Your task to perform on an android device: What's the news about the US dollar exchange rate? Image 0: 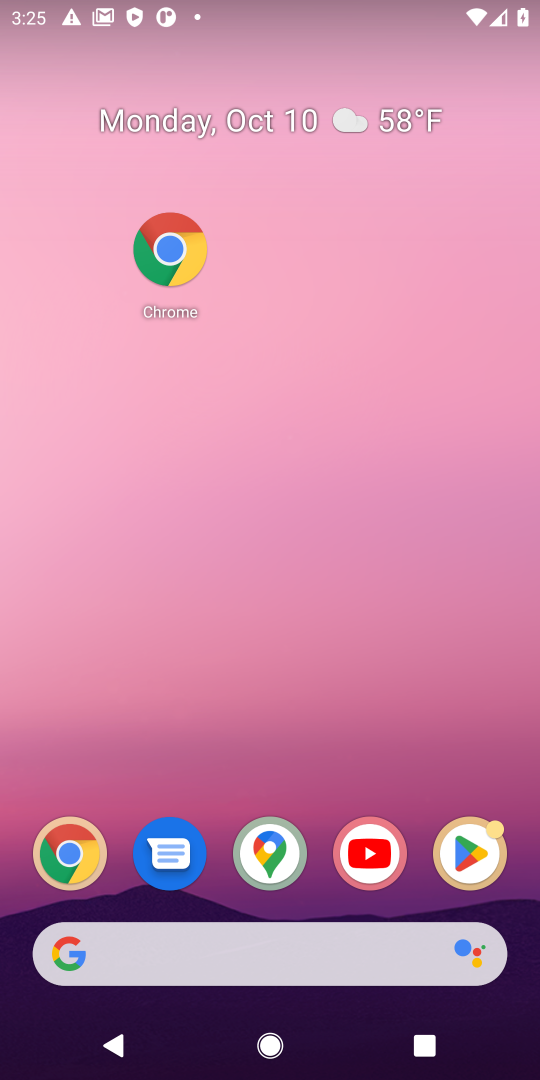
Step 0: press home button
Your task to perform on an android device: What's the news about the US dollar exchange rate? Image 1: 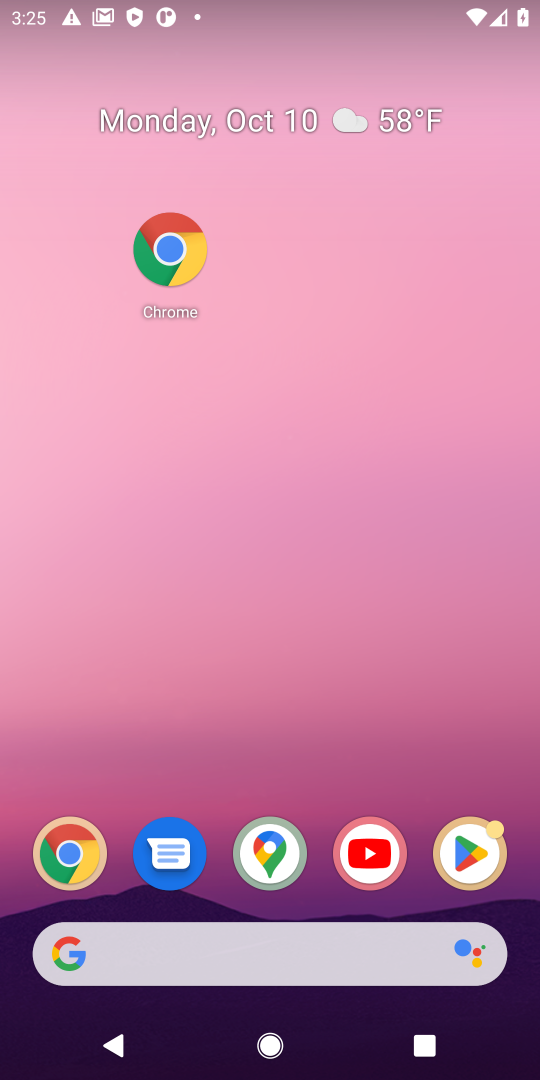
Step 1: click (49, 849)
Your task to perform on an android device: What's the news about the US dollar exchange rate? Image 2: 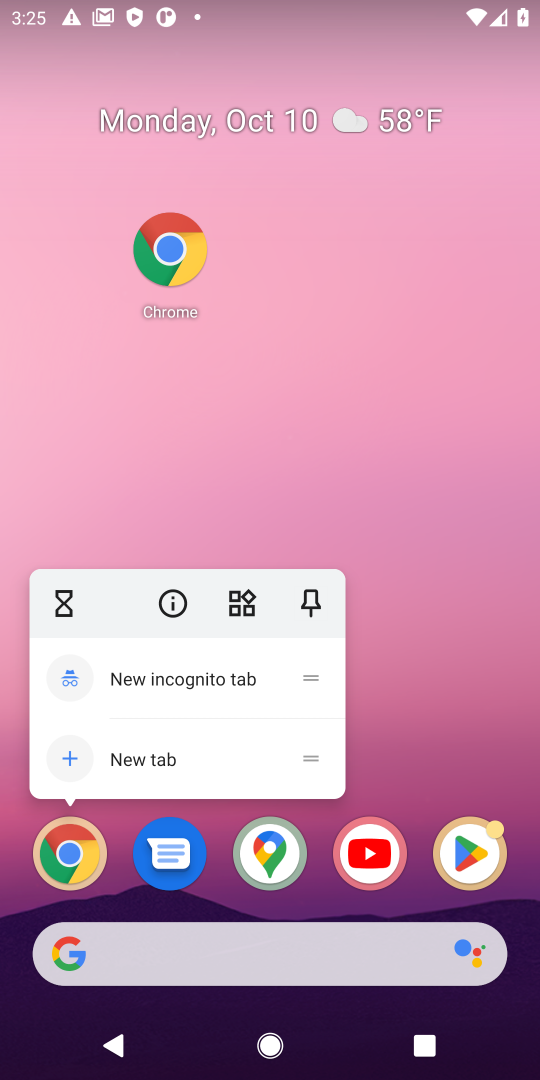
Step 2: click (52, 854)
Your task to perform on an android device: What's the news about the US dollar exchange rate? Image 3: 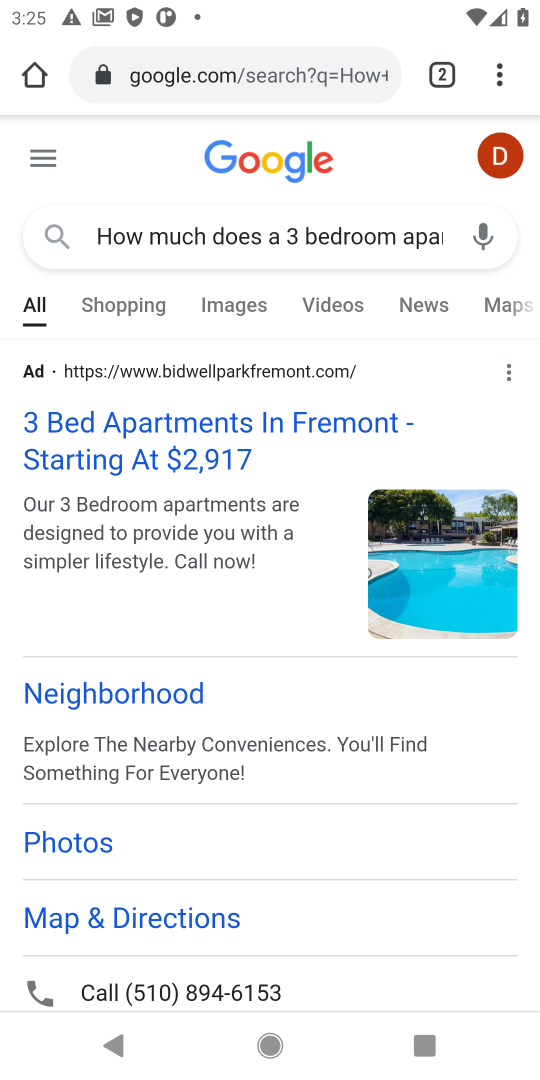
Step 3: click (328, 67)
Your task to perform on an android device: What's the news about the US dollar exchange rate? Image 4: 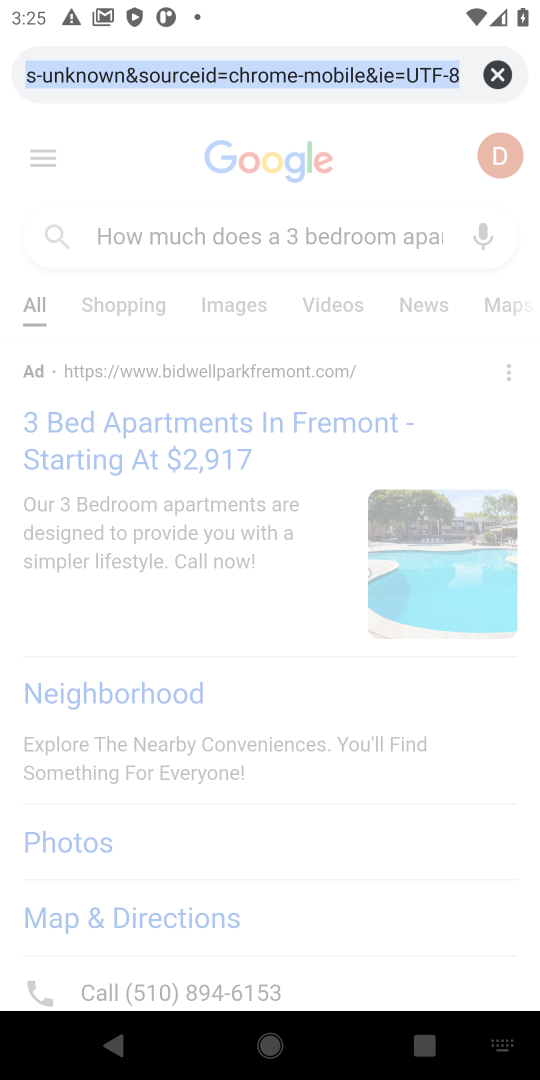
Step 4: type "What's the news about the US dollar exchange rate?"
Your task to perform on an android device: What's the news about the US dollar exchange rate? Image 5: 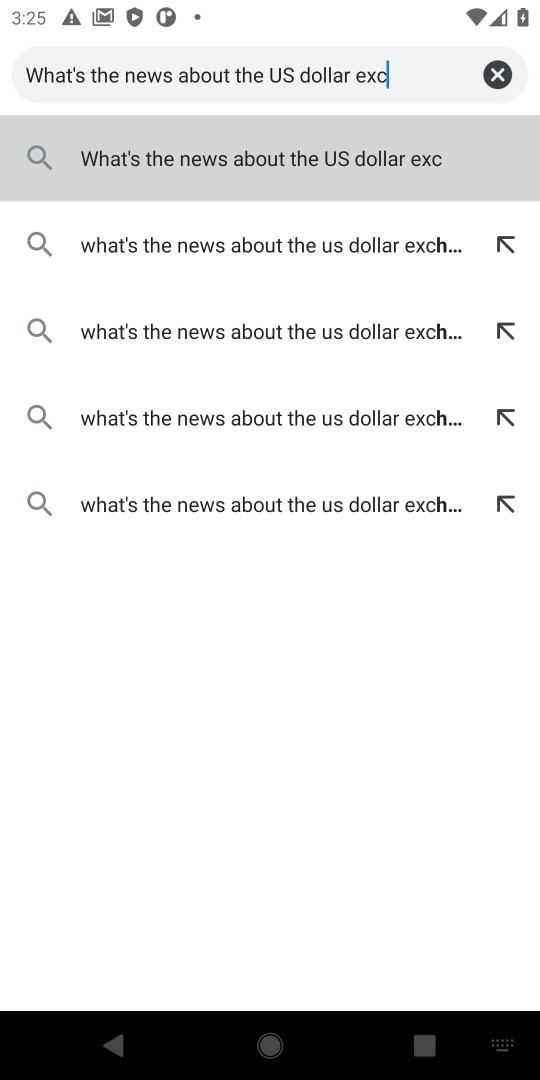
Step 5: click (367, 169)
Your task to perform on an android device: What's the news about the US dollar exchange rate? Image 6: 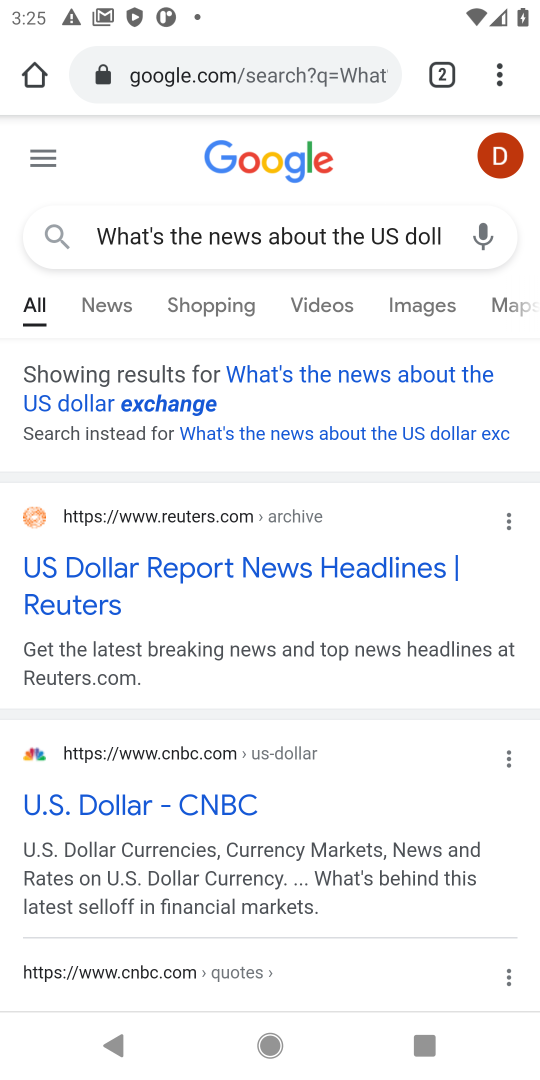
Step 6: task complete